Your task to perform on an android device: install app "Duolingo: language lessons" Image 0: 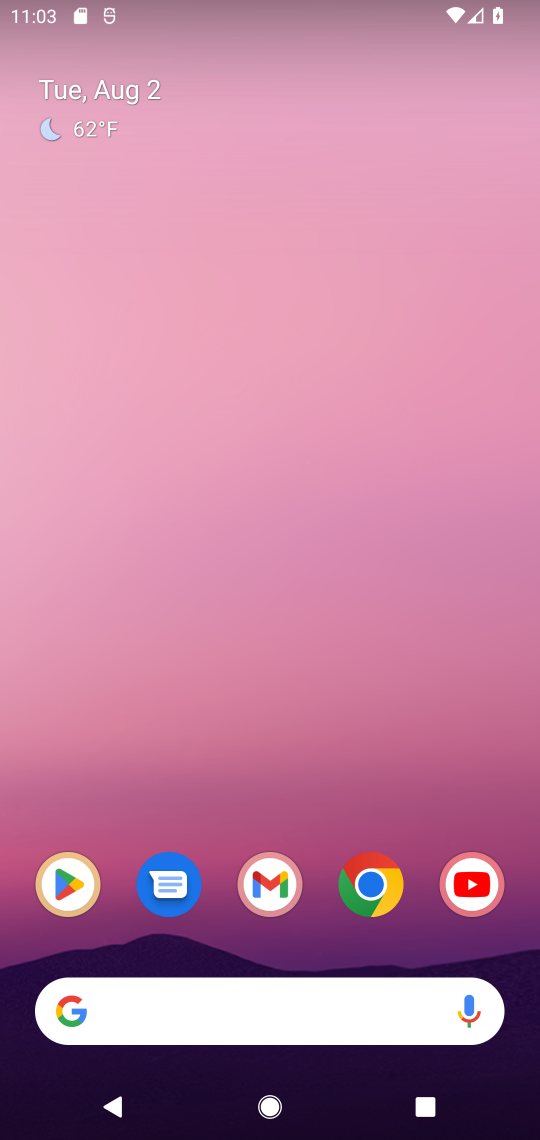
Step 0: click (74, 888)
Your task to perform on an android device: install app "Duolingo: language lessons" Image 1: 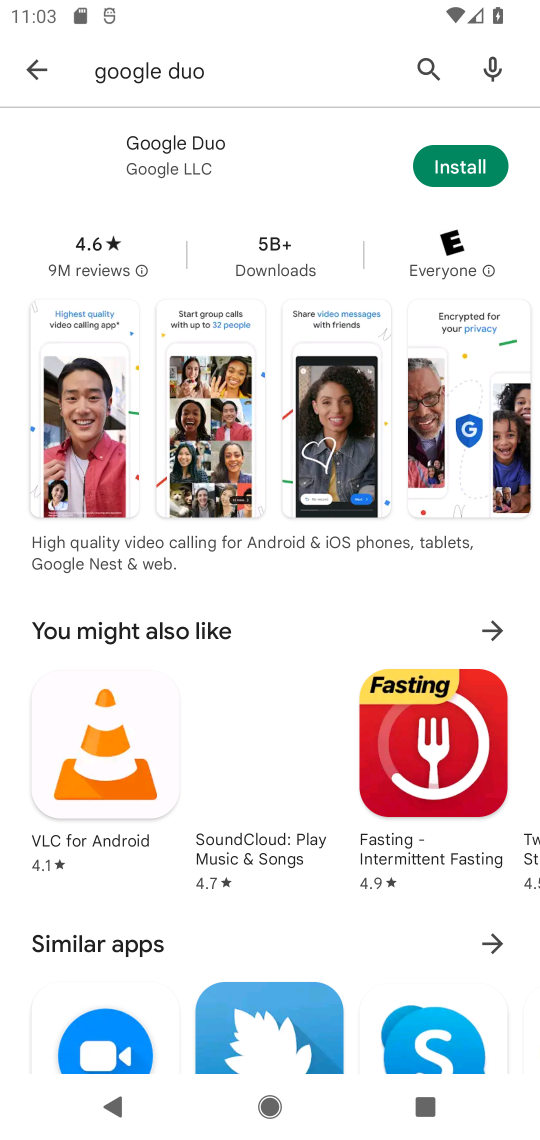
Step 1: click (176, 81)
Your task to perform on an android device: install app "Duolingo: language lessons" Image 2: 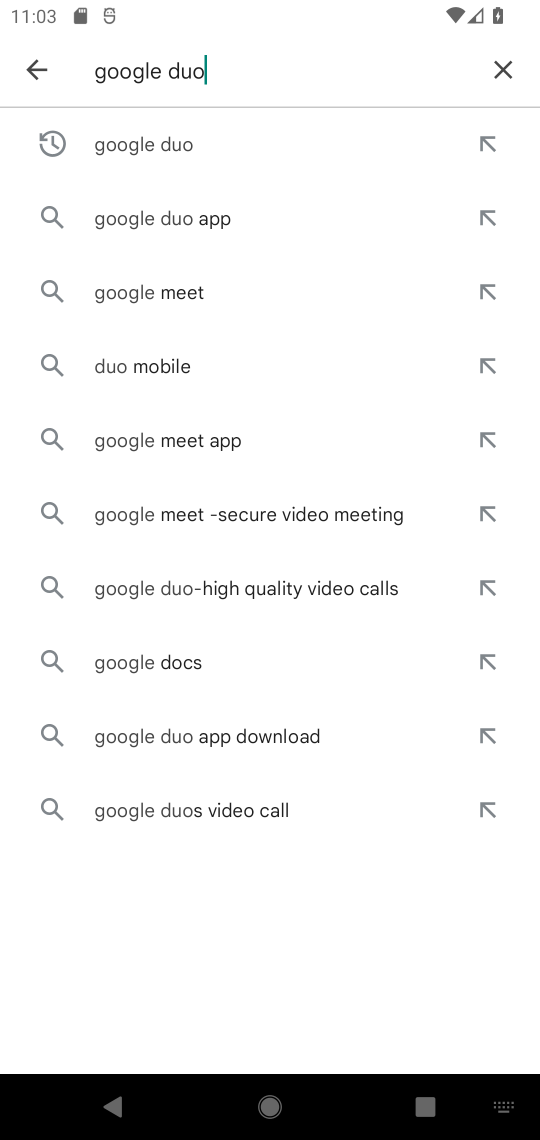
Step 2: click (515, 62)
Your task to perform on an android device: install app "Duolingo: language lessons" Image 3: 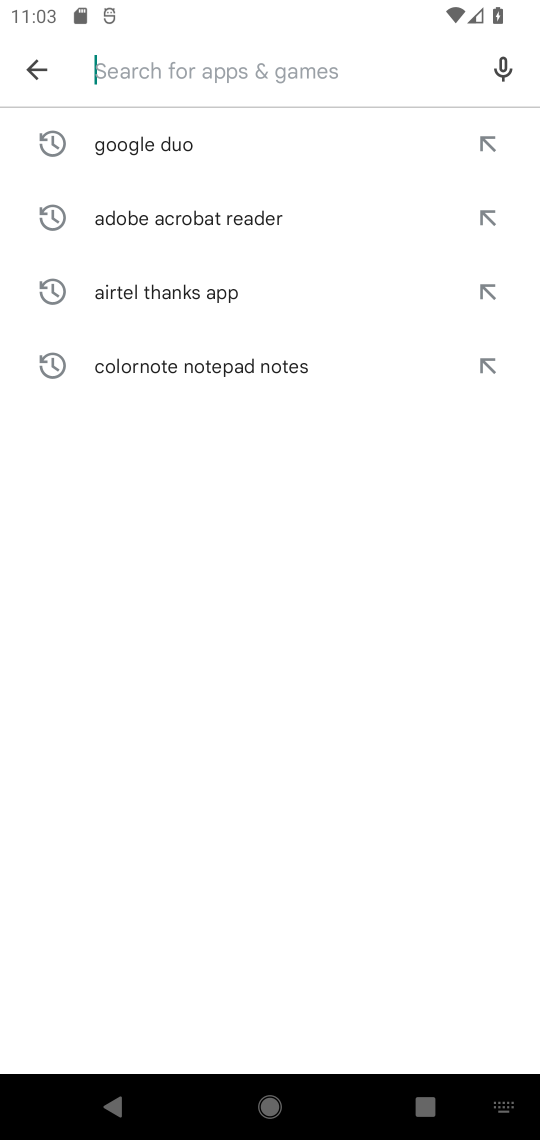
Step 3: type "duolingo"
Your task to perform on an android device: install app "Duolingo: language lessons" Image 4: 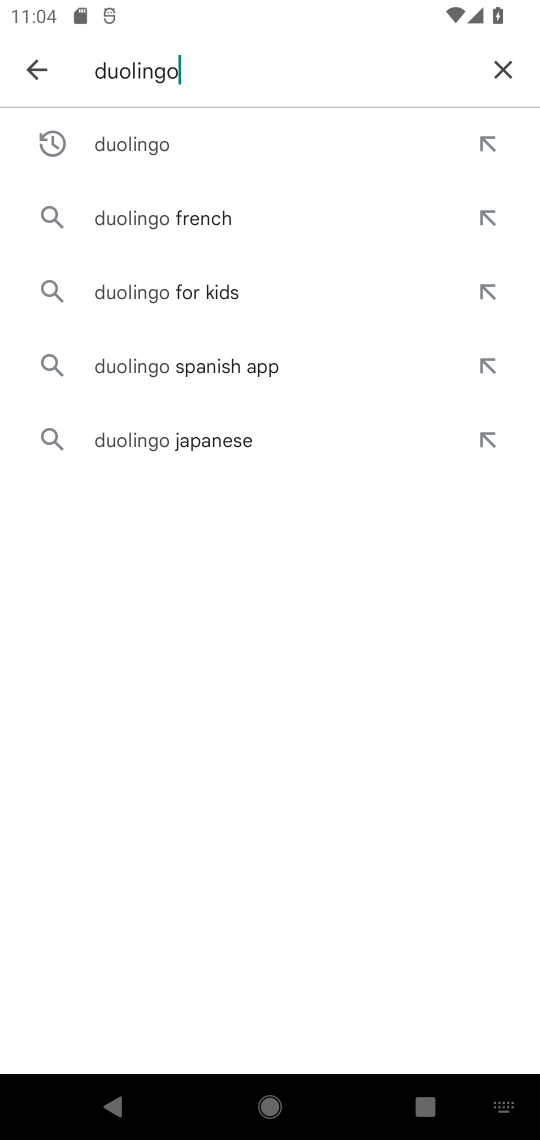
Step 4: click (135, 138)
Your task to perform on an android device: install app "Duolingo: language lessons" Image 5: 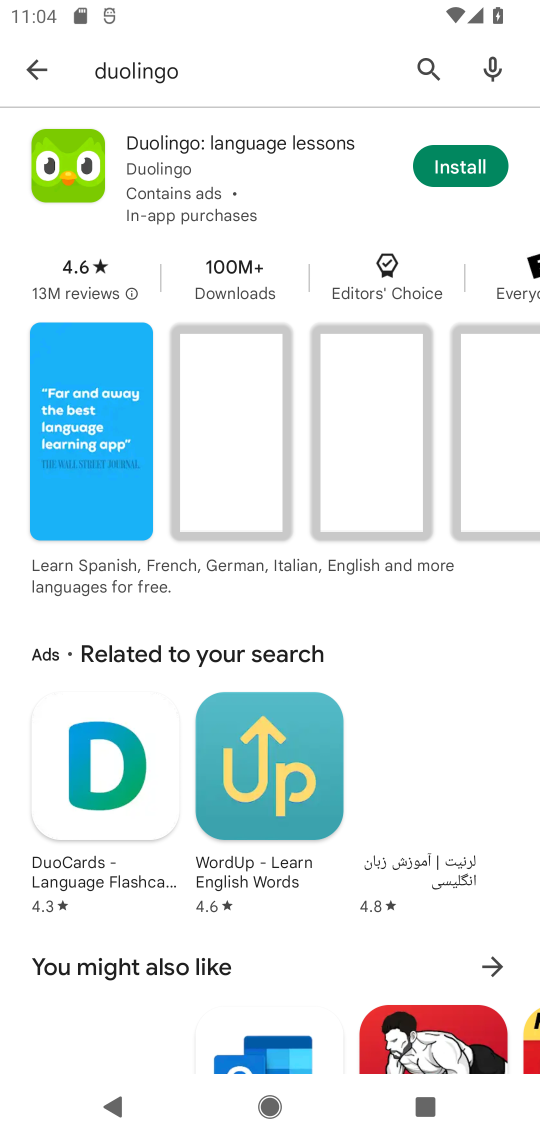
Step 5: click (451, 163)
Your task to perform on an android device: install app "Duolingo: language lessons" Image 6: 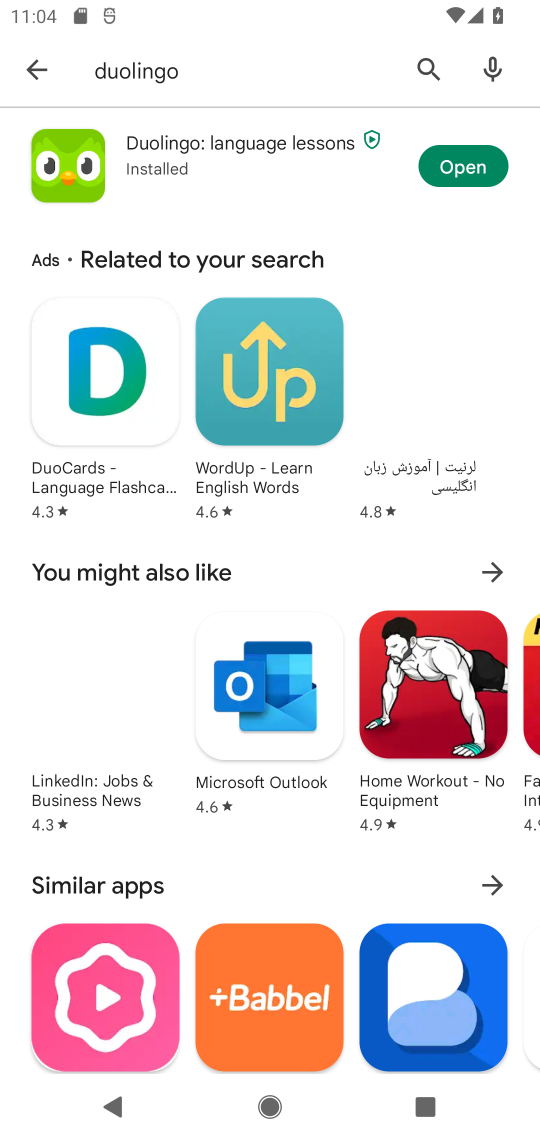
Step 6: task complete